Your task to perform on an android device: Add "asus zenbook" to the cart on walmart Image 0: 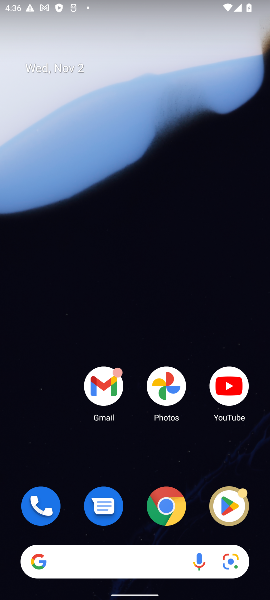
Step 0: click (163, 516)
Your task to perform on an android device: Add "asus zenbook" to the cart on walmart Image 1: 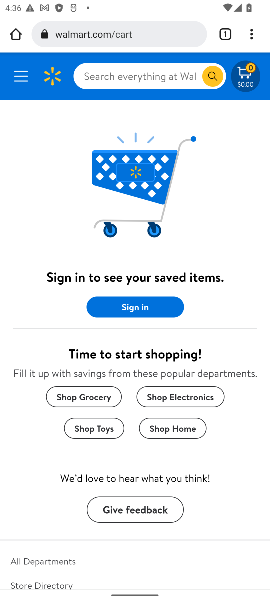
Step 1: click (149, 38)
Your task to perform on an android device: Add "asus zenbook" to the cart on walmart Image 2: 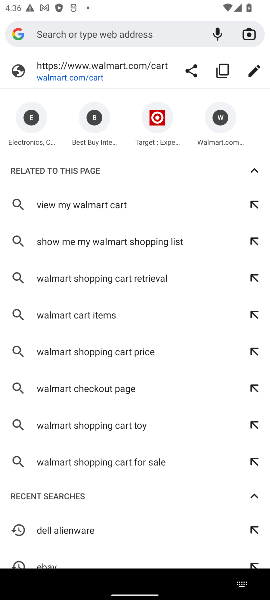
Step 2: type "walmart"
Your task to perform on an android device: Add "asus zenbook" to the cart on walmart Image 3: 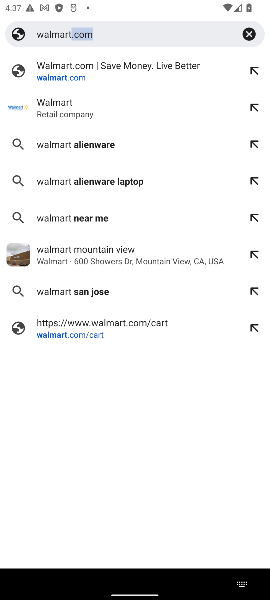
Step 3: press enter
Your task to perform on an android device: Add "asus zenbook" to the cart on walmart Image 4: 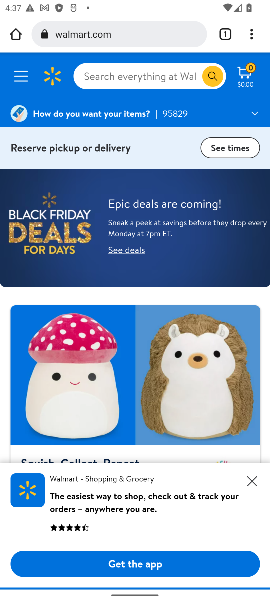
Step 4: click (130, 75)
Your task to perform on an android device: Add "asus zenbook" to the cart on walmart Image 5: 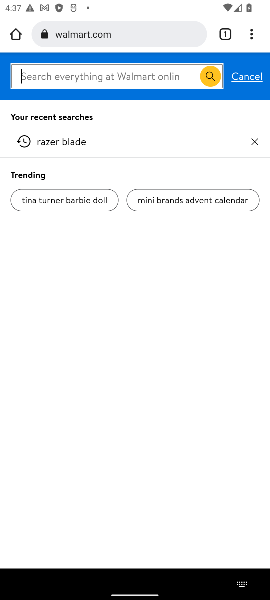
Step 5: type "asus zenbook"
Your task to perform on an android device: Add "asus zenbook" to the cart on walmart Image 6: 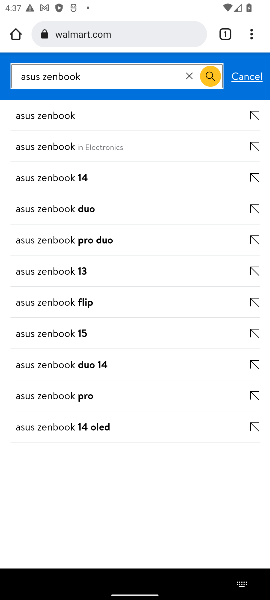
Step 6: click (72, 123)
Your task to perform on an android device: Add "asus zenbook" to the cart on walmart Image 7: 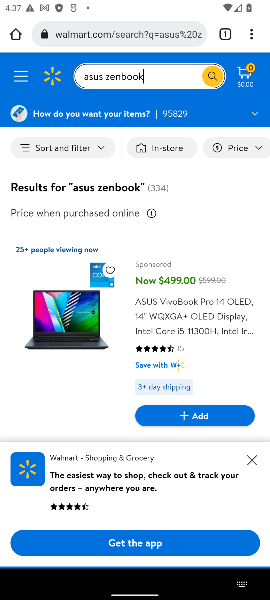
Step 7: click (73, 314)
Your task to perform on an android device: Add "asus zenbook" to the cart on walmart Image 8: 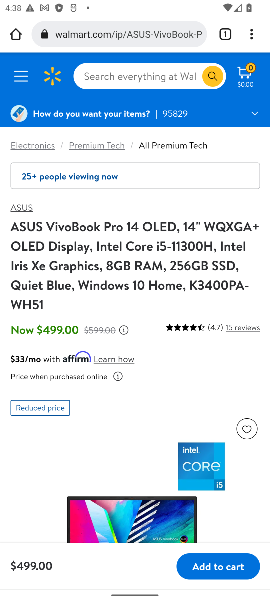
Step 8: click (228, 569)
Your task to perform on an android device: Add "asus zenbook" to the cart on walmart Image 9: 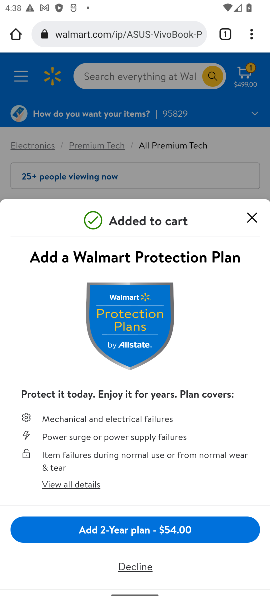
Step 9: click (251, 218)
Your task to perform on an android device: Add "asus zenbook" to the cart on walmart Image 10: 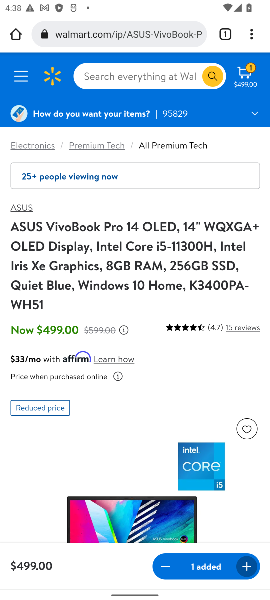
Step 10: task complete